Your task to perform on an android device: Open Google Chrome and click the shortcut for Amazon.com Image 0: 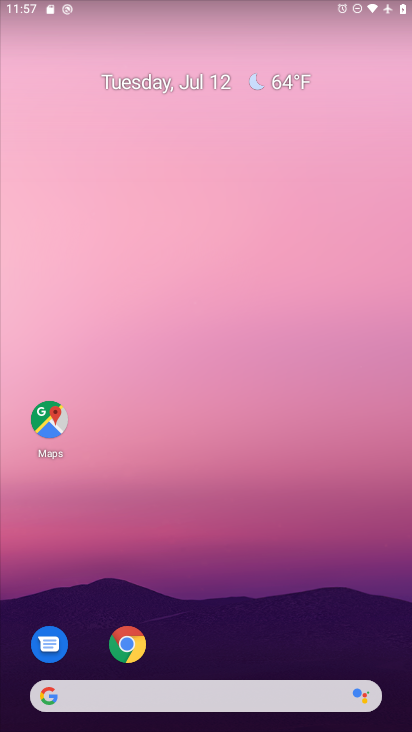
Step 0: click (137, 632)
Your task to perform on an android device: Open Google Chrome and click the shortcut for Amazon.com Image 1: 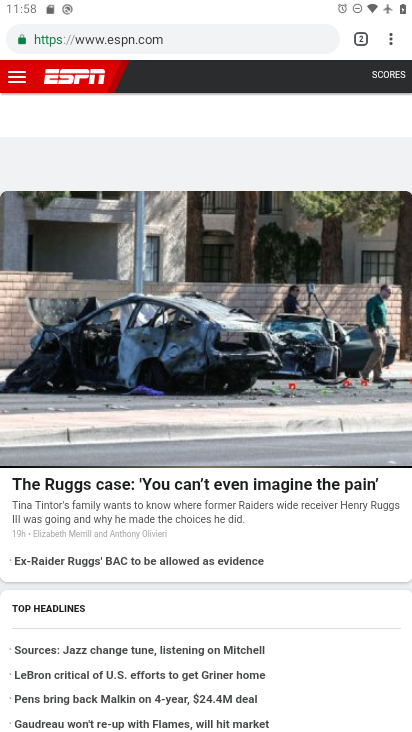
Step 1: click (395, 47)
Your task to perform on an android device: Open Google Chrome and click the shortcut for Amazon.com Image 2: 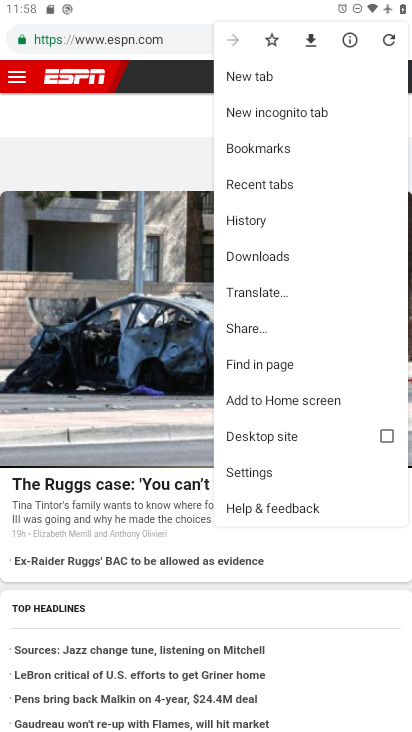
Step 2: click (81, 117)
Your task to perform on an android device: Open Google Chrome and click the shortcut for Amazon.com Image 3: 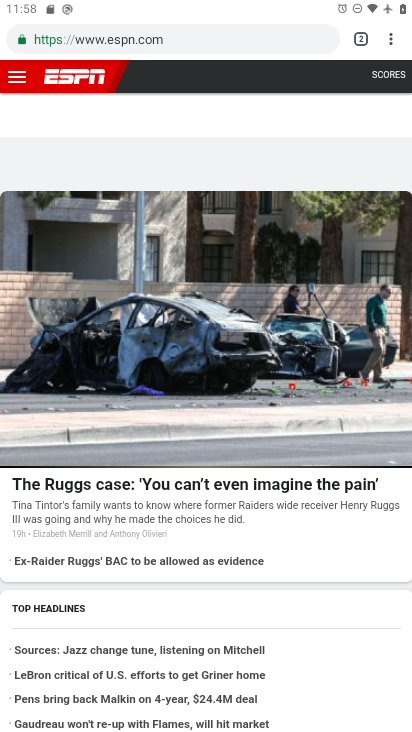
Step 3: click (355, 43)
Your task to perform on an android device: Open Google Chrome and click the shortcut for Amazon.com Image 4: 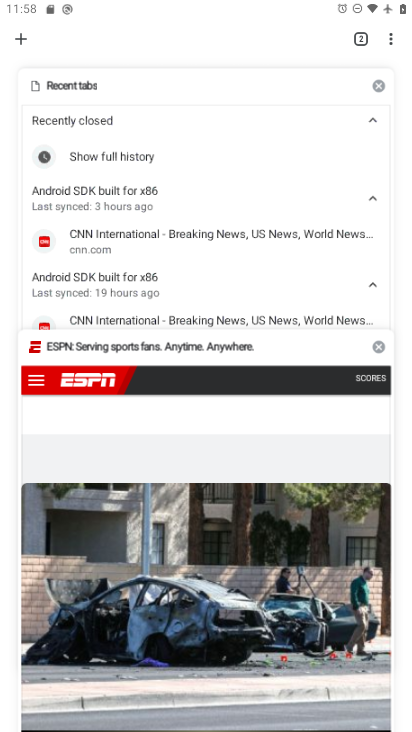
Step 4: click (11, 43)
Your task to perform on an android device: Open Google Chrome and click the shortcut for Amazon.com Image 5: 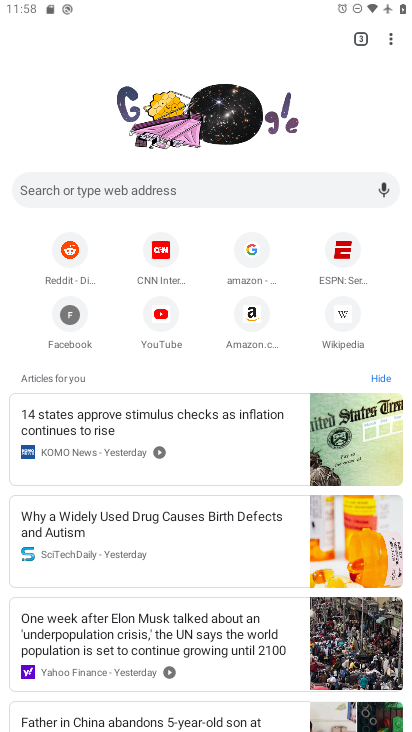
Step 5: click (252, 315)
Your task to perform on an android device: Open Google Chrome and click the shortcut for Amazon.com Image 6: 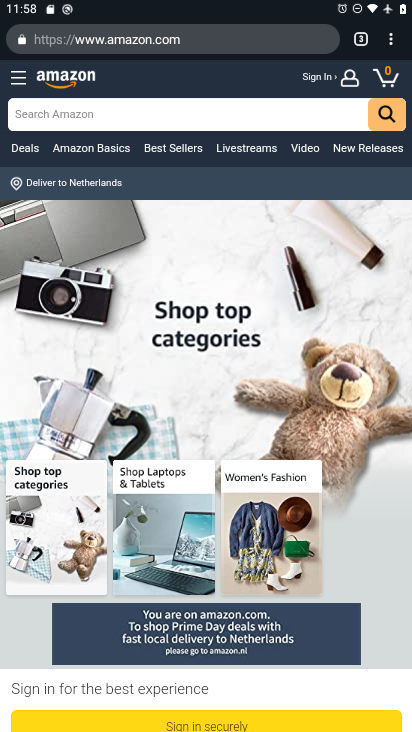
Step 6: task complete